Your task to perform on an android device: Open accessibility settings Image 0: 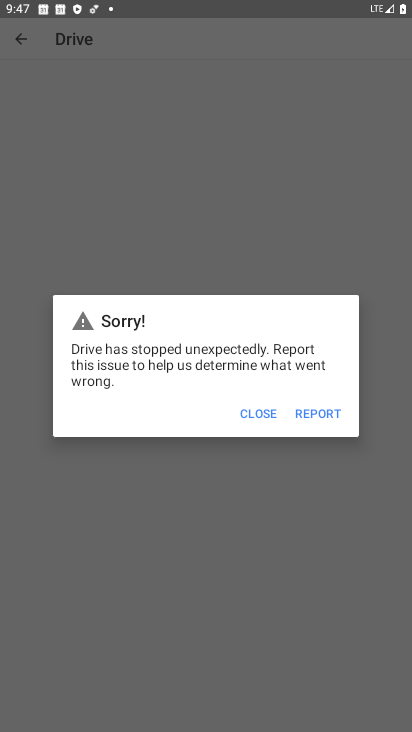
Step 0: press home button
Your task to perform on an android device: Open accessibility settings Image 1: 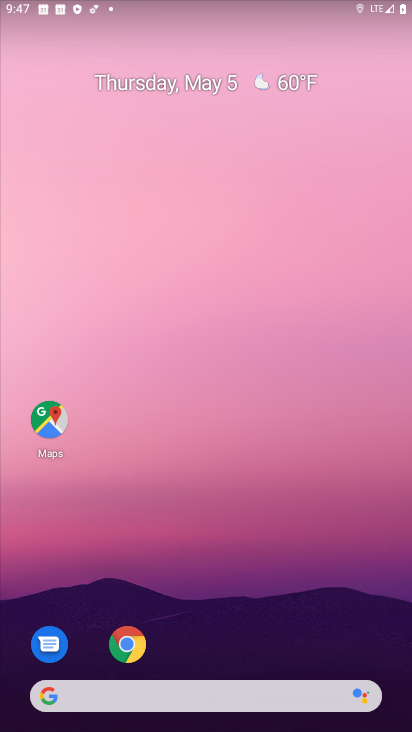
Step 1: drag from (196, 564) to (268, 104)
Your task to perform on an android device: Open accessibility settings Image 2: 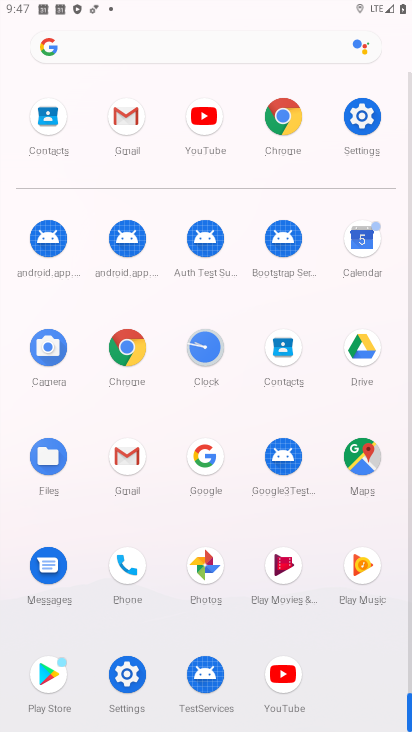
Step 2: click (364, 108)
Your task to perform on an android device: Open accessibility settings Image 3: 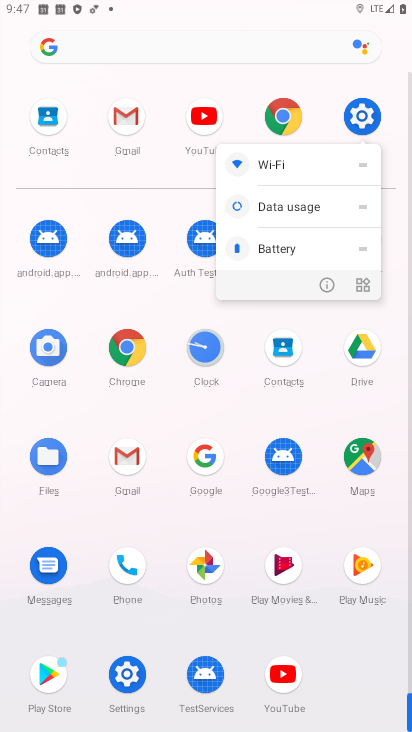
Step 3: click (326, 288)
Your task to perform on an android device: Open accessibility settings Image 4: 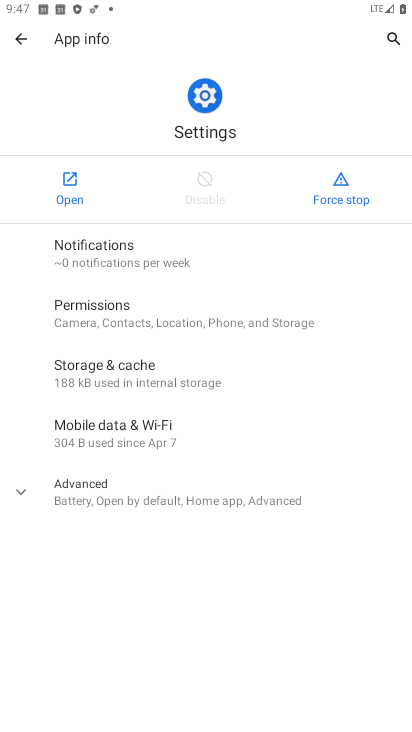
Step 4: click (68, 178)
Your task to perform on an android device: Open accessibility settings Image 5: 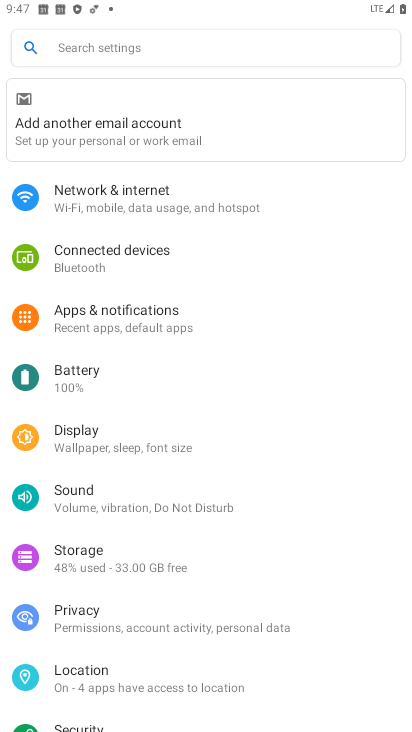
Step 5: drag from (187, 567) to (291, 5)
Your task to perform on an android device: Open accessibility settings Image 6: 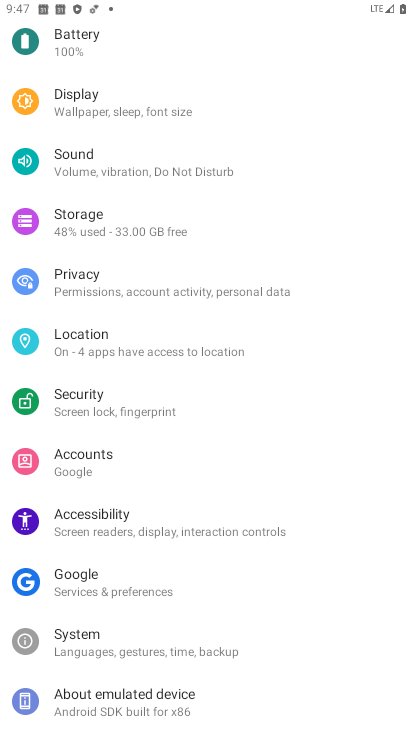
Step 6: drag from (158, 521) to (229, 109)
Your task to perform on an android device: Open accessibility settings Image 7: 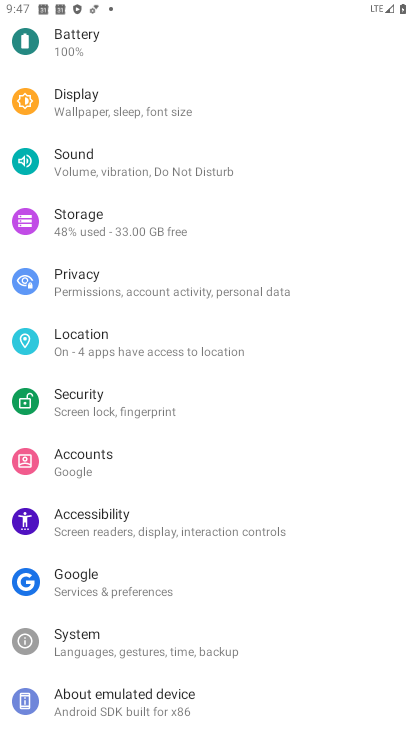
Step 7: click (133, 512)
Your task to perform on an android device: Open accessibility settings Image 8: 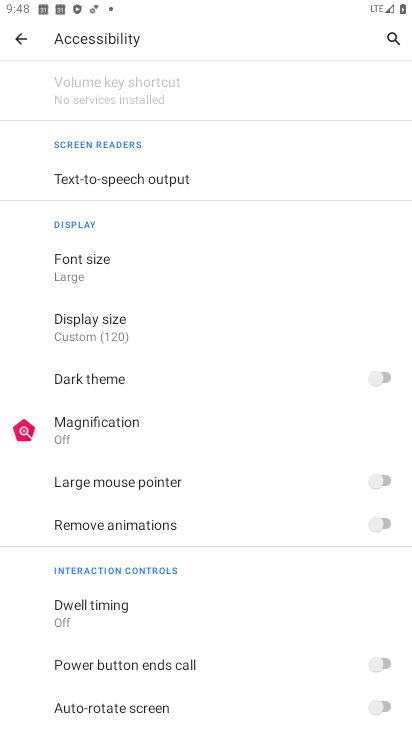
Step 8: task complete